Your task to perform on an android device: Open Google Image 0: 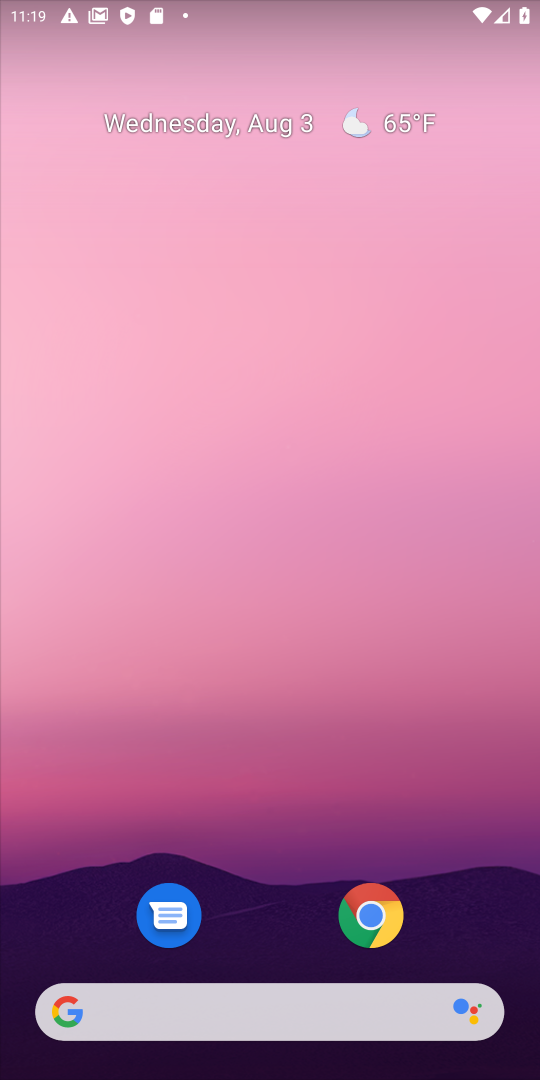
Step 0: drag from (274, 942) to (303, 158)
Your task to perform on an android device: Open Google Image 1: 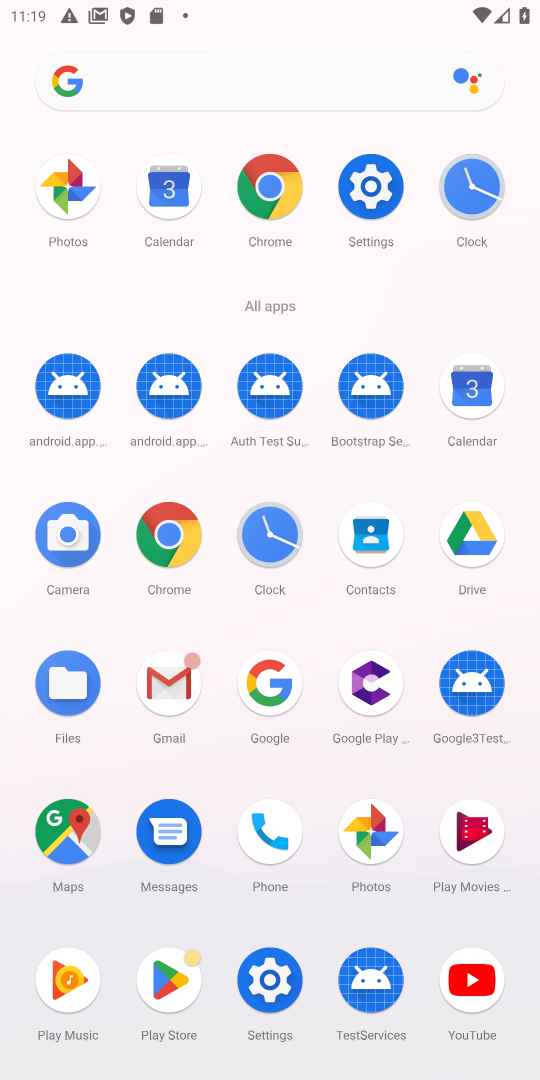
Step 1: click (287, 708)
Your task to perform on an android device: Open Google Image 2: 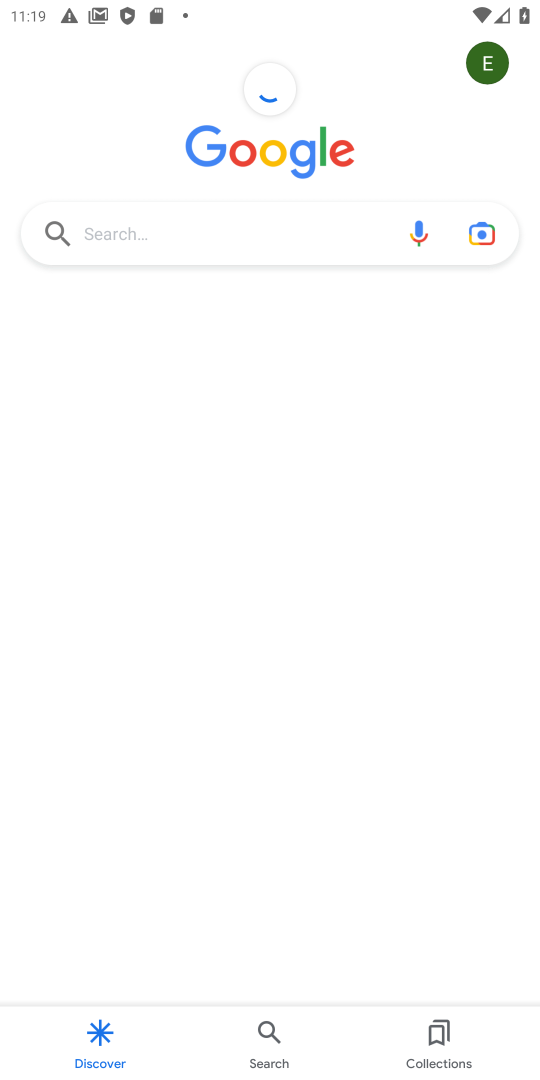
Step 2: task complete